Your task to perform on an android device: Add razer blade to the cart on bestbuy.com Image 0: 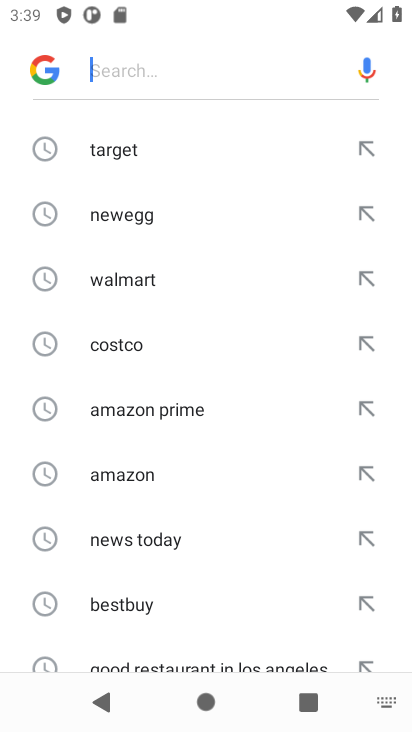
Step 0: click (148, 613)
Your task to perform on an android device: Add razer blade to the cart on bestbuy.com Image 1: 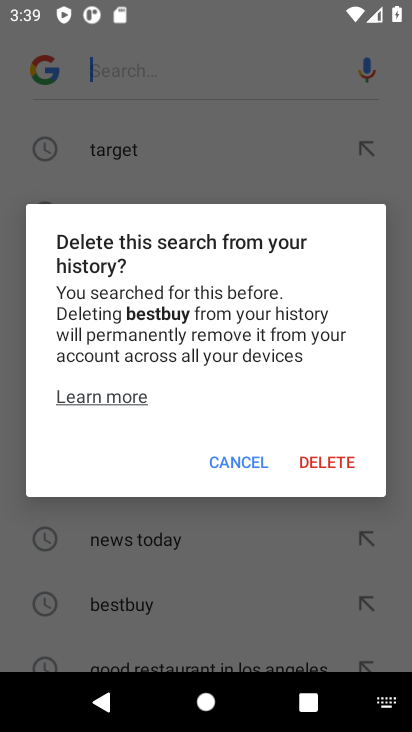
Step 1: press home button
Your task to perform on an android device: Add razer blade to the cart on bestbuy.com Image 2: 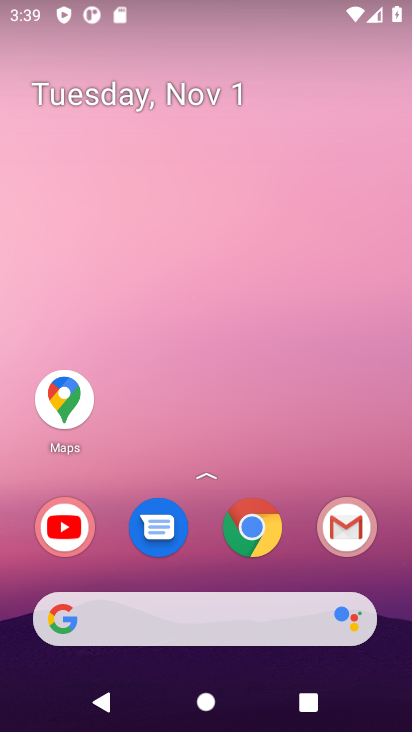
Step 2: type "bestbuy.com"
Your task to perform on an android device: Add razer blade to the cart on bestbuy.com Image 3: 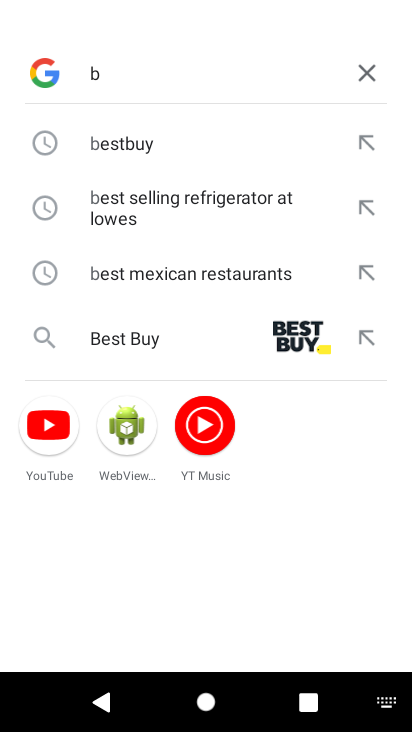
Step 3: type "bestbuy.com"
Your task to perform on an android device: Add razer blade to the cart on bestbuy.com Image 4: 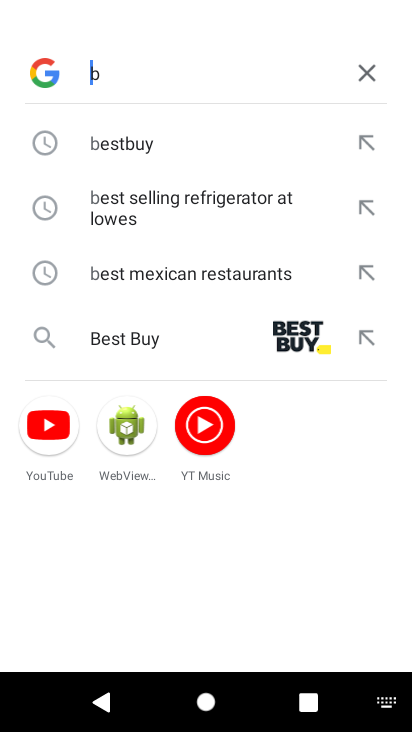
Step 4: click (369, 73)
Your task to perform on an android device: Add razer blade to the cart on bestbuy.com Image 5: 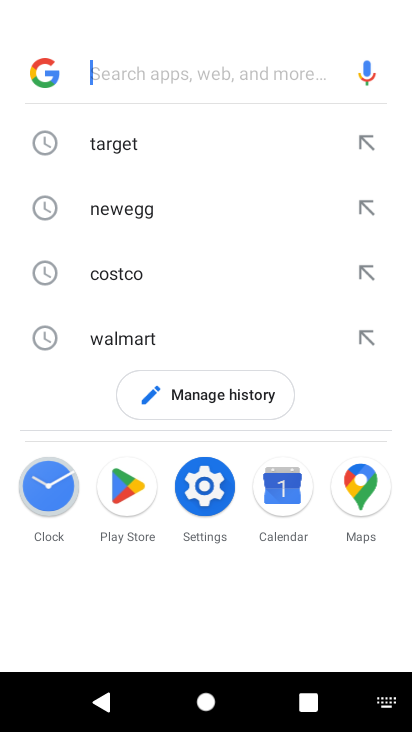
Step 5: click (368, 73)
Your task to perform on an android device: Add razer blade to the cart on bestbuy.com Image 6: 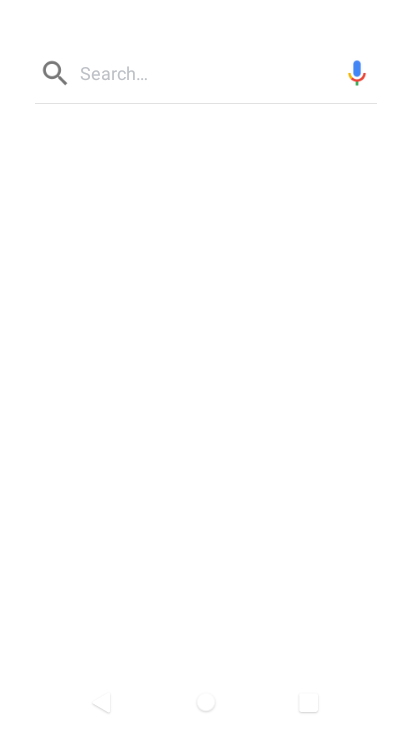
Step 6: type "bestbuy.com"
Your task to perform on an android device: Add razer blade to the cart on bestbuy.com Image 7: 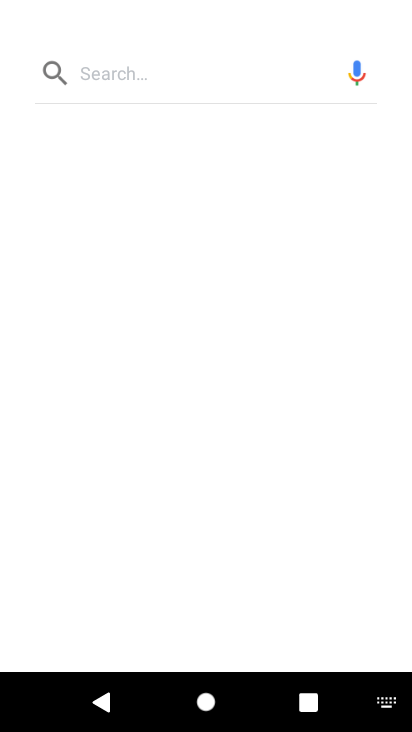
Step 7: type ""
Your task to perform on an android device: Add razer blade to the cart on bestbuy.com Image 8: 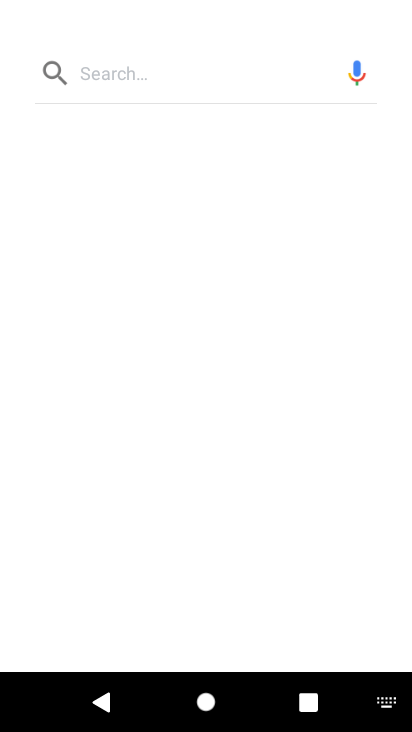
Step 8: press enter
Your task to perform on an android device: Add razer blade to the cart on bestbuy.com Image 9: 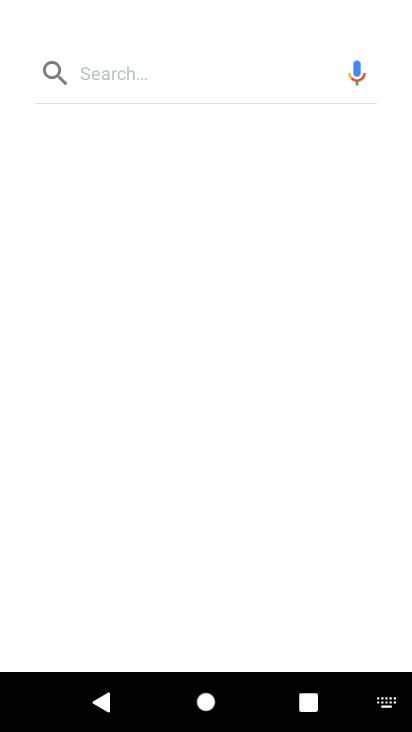
Step 9: click (118, 82)
Your task to perform on an android device: Add razer blade to the cart on bestbuy.com Image 10: 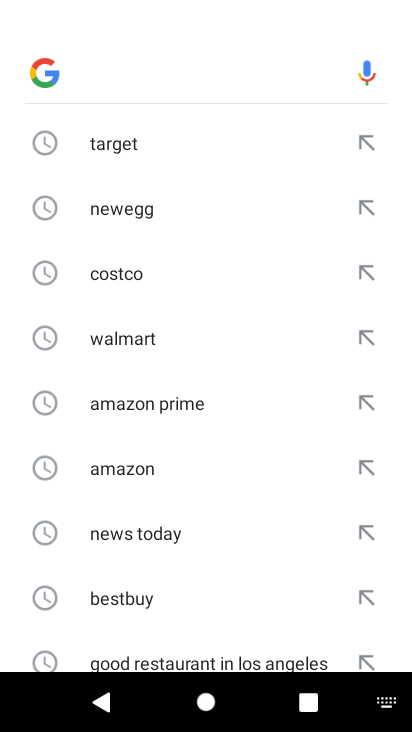
Step 10: click (136, 593)
Your task to perform on an android device: Add razer blade to the cart on bestbuy.com Image 11: 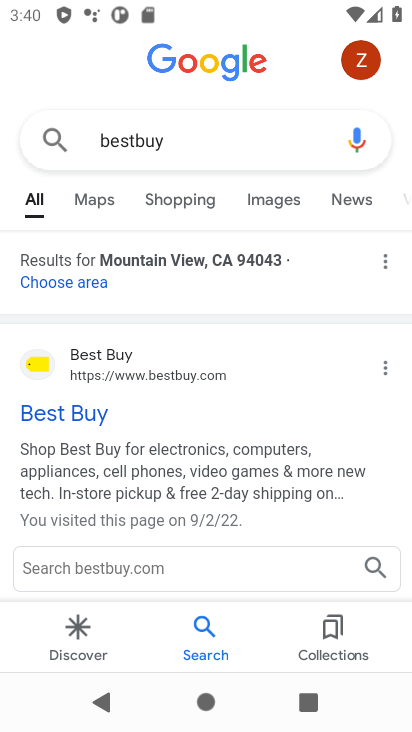
Step 11: click (62, 408)
Your task to perform on an android device: Add razer blade to the cart on bestbuy.com Image 12: 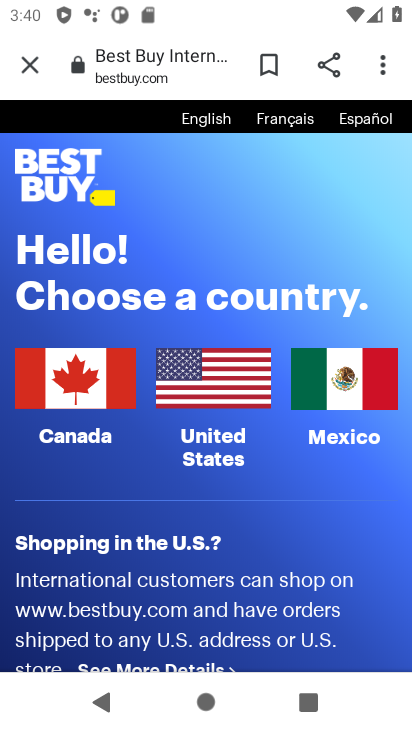
Step 12: click (231, 404)
Your task to perform on an android device: Add razer blade to the cart on bestbuy.com Image 13: 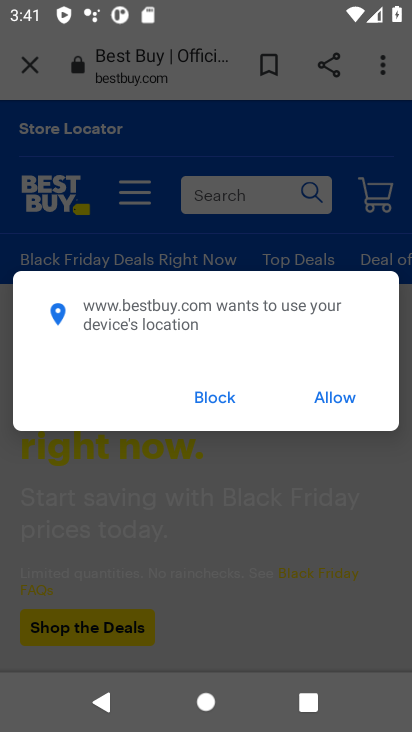
Step 13: click (339, 406)
Your task to perform on an android device: Add razer blade to the cart on bestbuy.com Image 14: 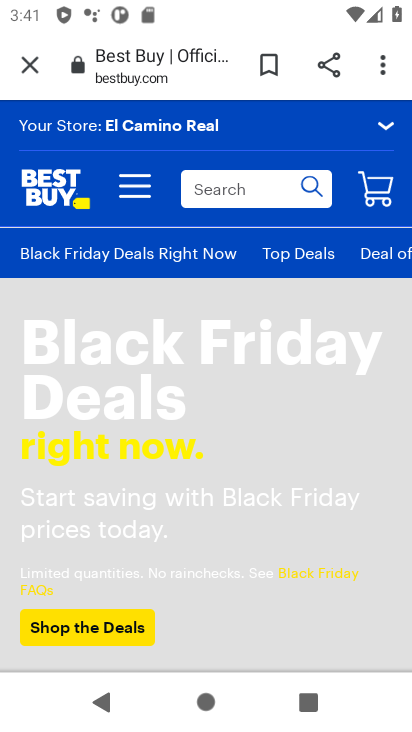
Step 14: click (242, 191)
Your task to perform on an android device: Add razer blade to the cart on bestbuy.com Image 15: 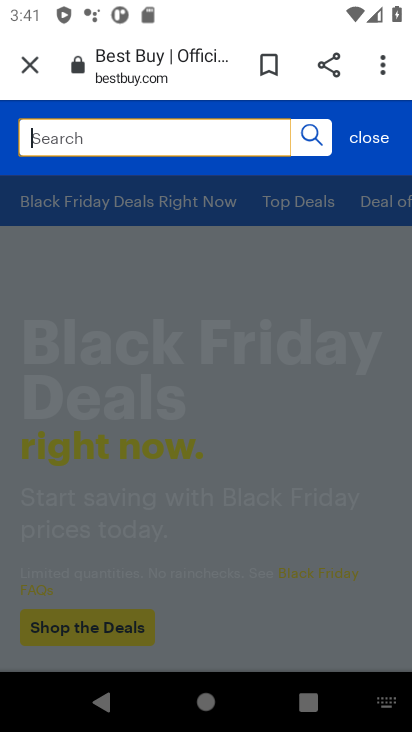
Step 15: type "razer blad"
Your task to perform on an android device: Add razer blade to the cart on bestbuy.com Image 16: 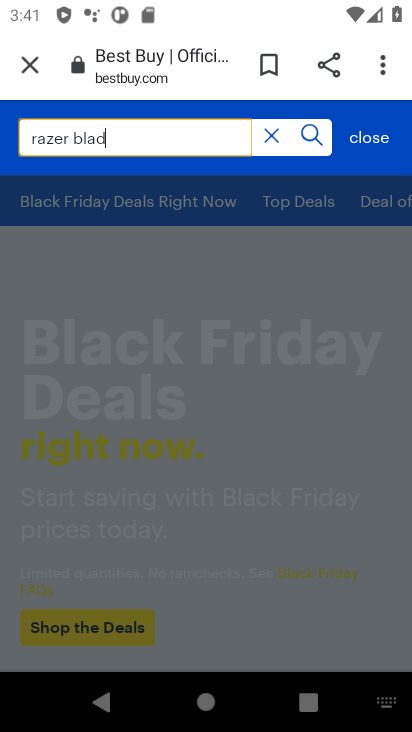
Step 16: type ""
Your task to perform on an android device: Add razer blade to the cart on bestbuy.com Image 17: 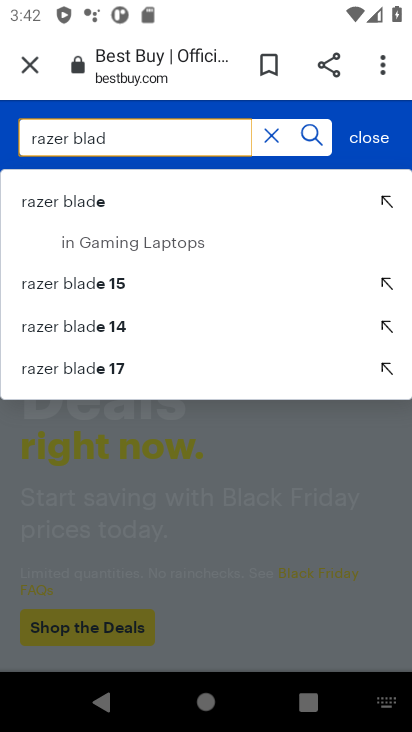
Step 17: click (306, 139)
Your task to perform on an android device: Add razer blade to the cart on bestbuy.com Image 18: 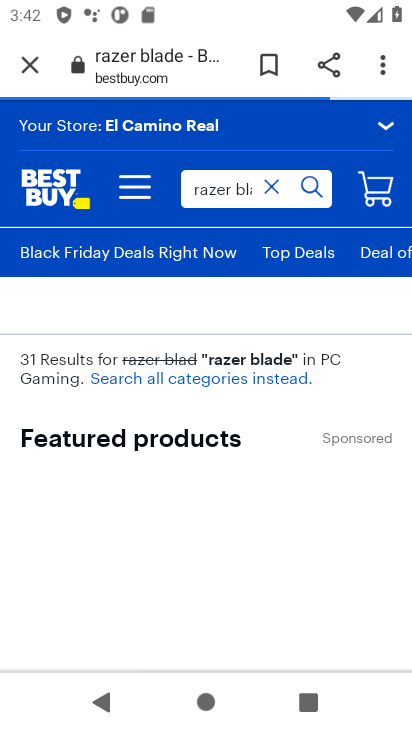
Step 18: drag from (283, 553) to (299, 290)
Your task to perform on an android device: Add razer blade to the cart on bestbuy.com Image 19: 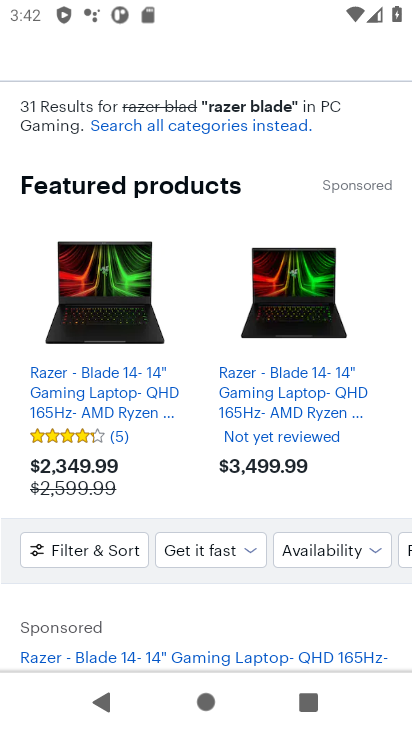
Step 19: drag from (203, 478) to (212, 245)
Your task to perform on an android device: Add razer blade to the cart on bestbuy.com Image 20: 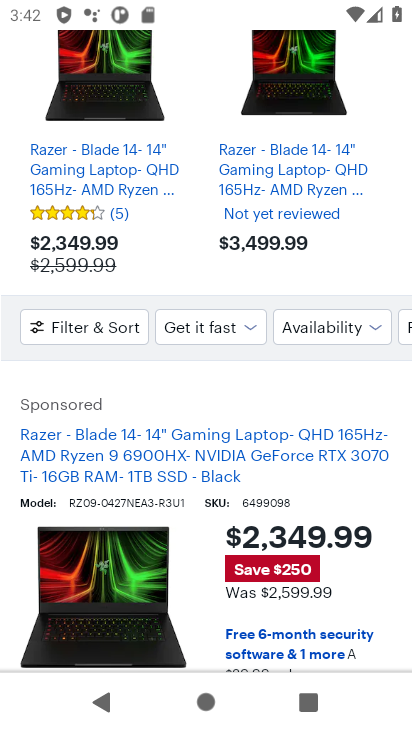
Step 20: drag from (282, 606) to (271, 407)
Your task to perform on an android device: Add razer blade to the cart on bestbuy.com Image 21: 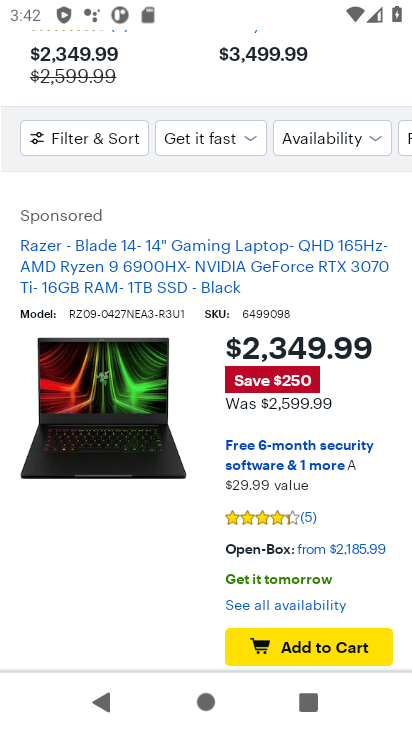
Step 21: click (321, 638)
Your task to perform on an android device: Add razer blade to the cart on bestbuy.com Image 22: 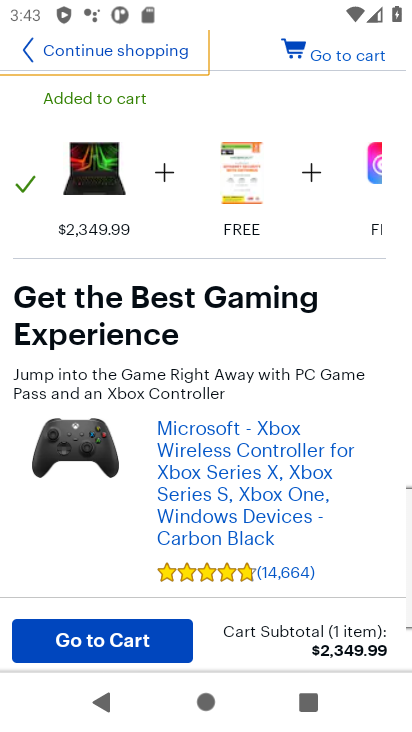
Step 22: click (88, 641)
Your task to perform on an android device: Add razer blade to the cart on bestbuy.com Image 23: 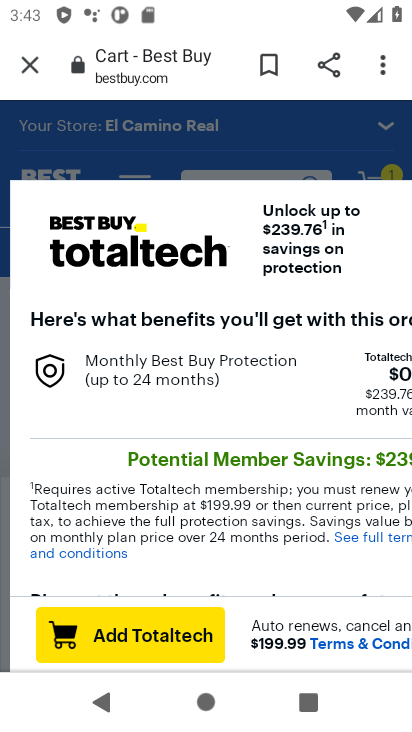
Step 23: click (119, 636)
Your task to perform on an android device: Add razer blade to the cart on bestbuy.com Image 24: 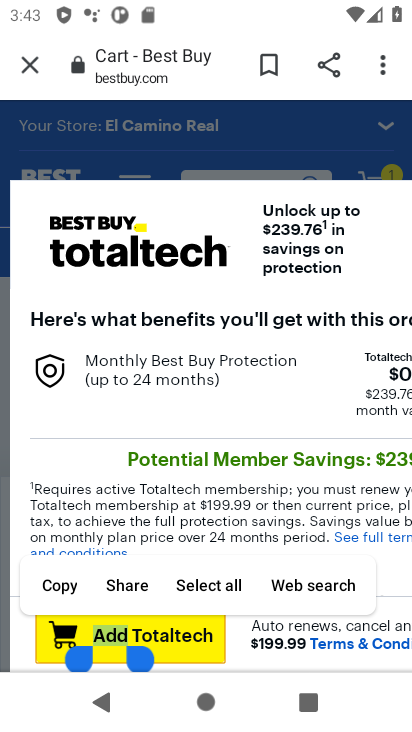
Step 24: task complete